Your task to perform on an android device: Show me popular videos on Youtube Image 0: 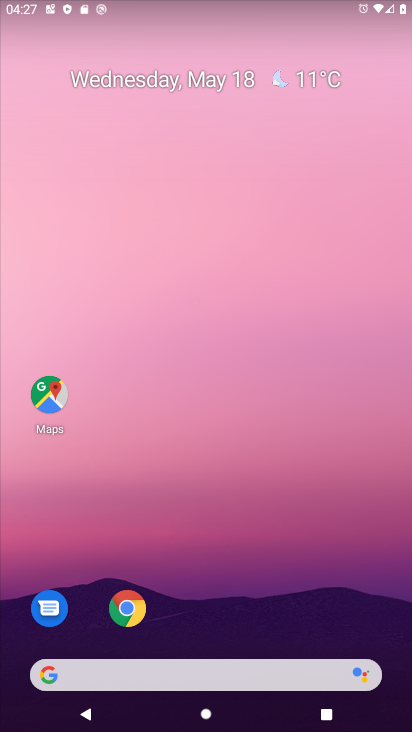
Step 0: drag from (197, 621) to (218, 50)
Your task to perform on an android device: Show me popular videos on Youtube Image 1: 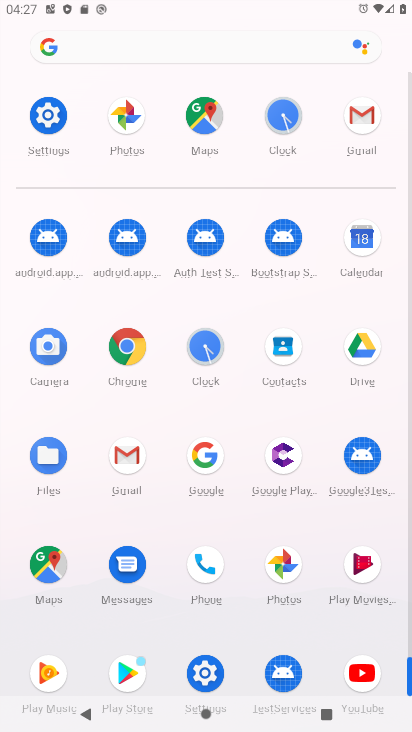
Step 1: click (371, 678)
Your task to perform on an android device: Show me popular videos on Youtube Image 2: 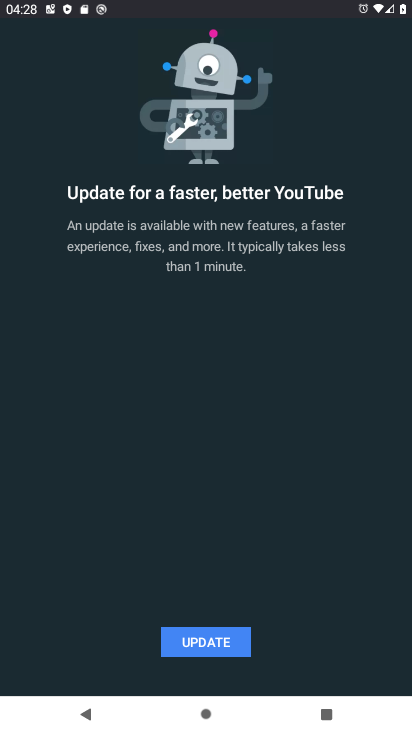
Step 2: click (201, 645)
Your task to perform on an android device: Show me popular videos on Youtube Image 3: 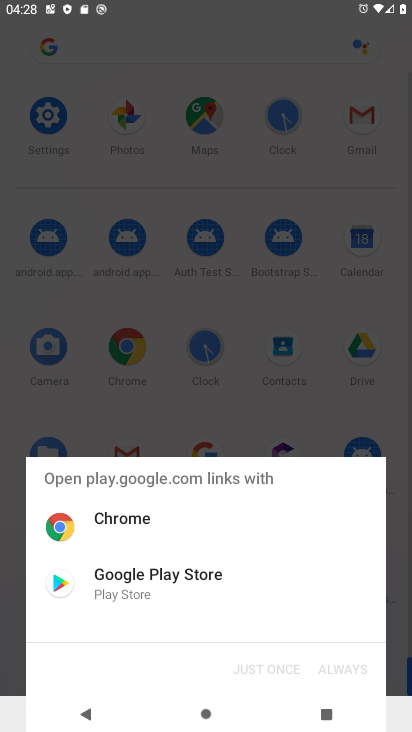
Step 3: click (142, 606)
Your task to perform on an android device: Show me popular videos on Youtube Image 4: 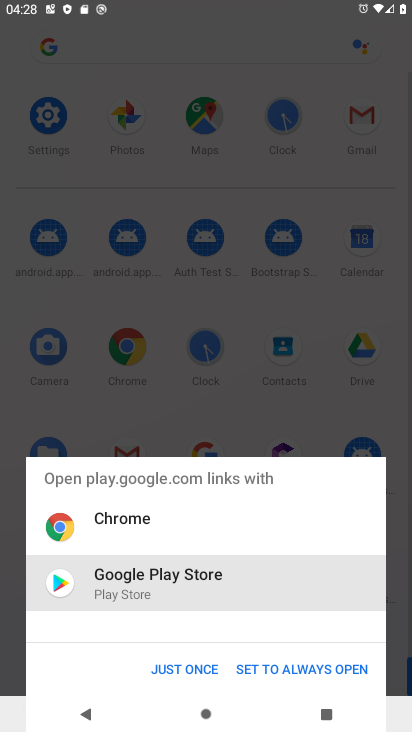
Step 4: click (207, 661)
Your task to perform on an android device: Show me popular videos on Youtube Image 5: 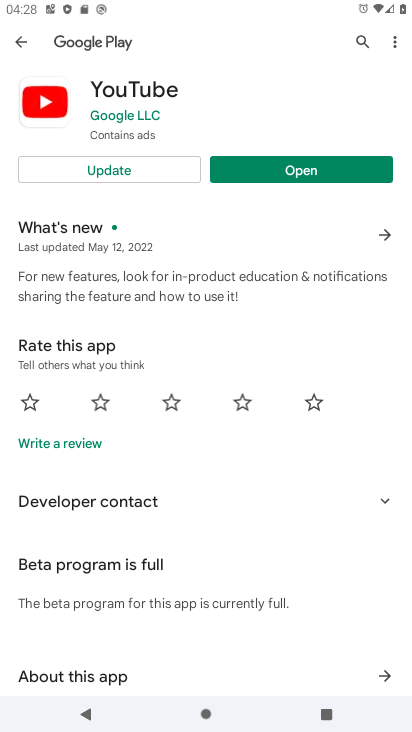
Step 5: click (126, 163)
Your task to perform on an android device: Show me popular videos on Youtube Image 6: 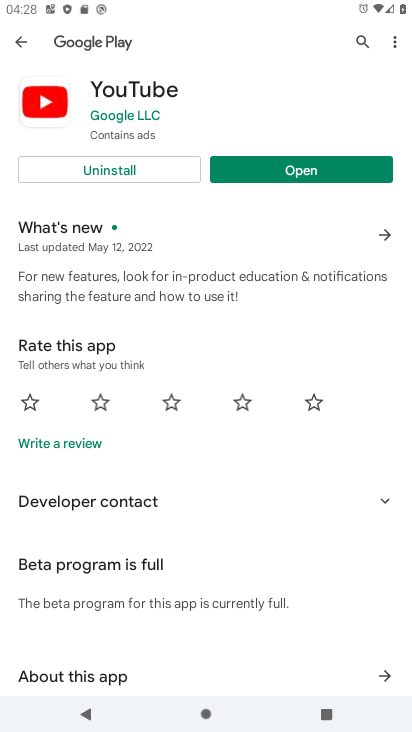
Step 6: click (271, 168)
Your task to perform on an android device: Show me popular videos on Youtube Image 7: 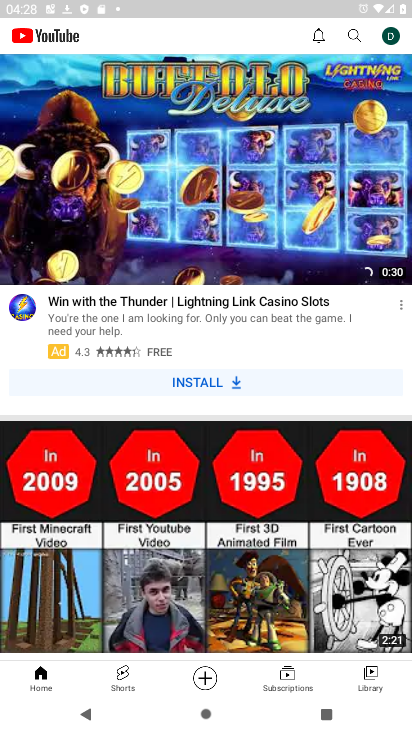
Step 7: task complete